Your task to perform on an android device: turn pop-ups on in chrome Image 0: 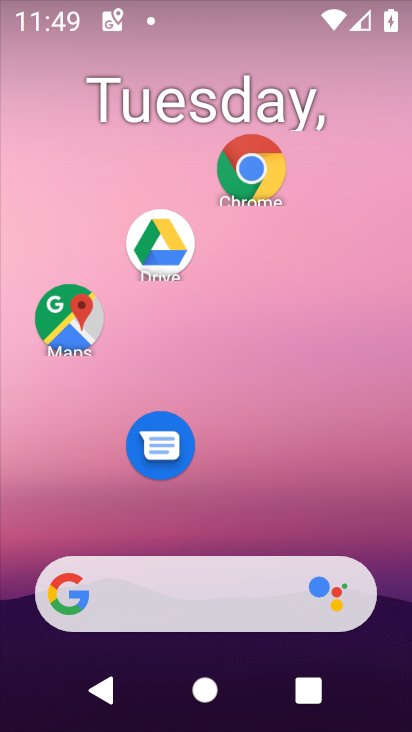
Step 0: click (261, 174)
Your task to perform on an android device: turn pop-ups on in chrome Image 1: 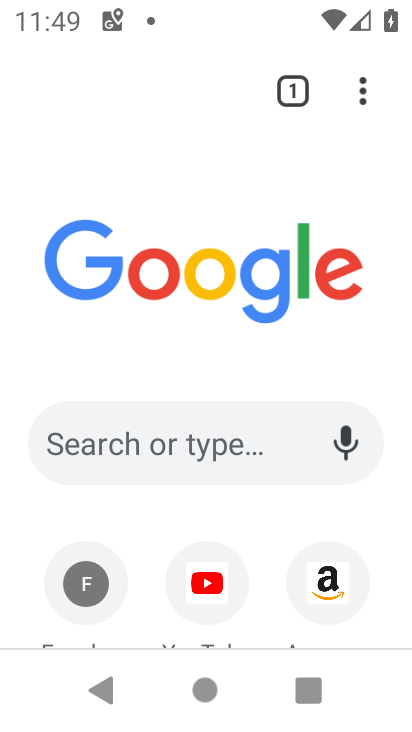
Step 1: drag from (369, 80) to (182, 462)
Your task to perform on an android device: turn pop-ups on in chrome Image 2: 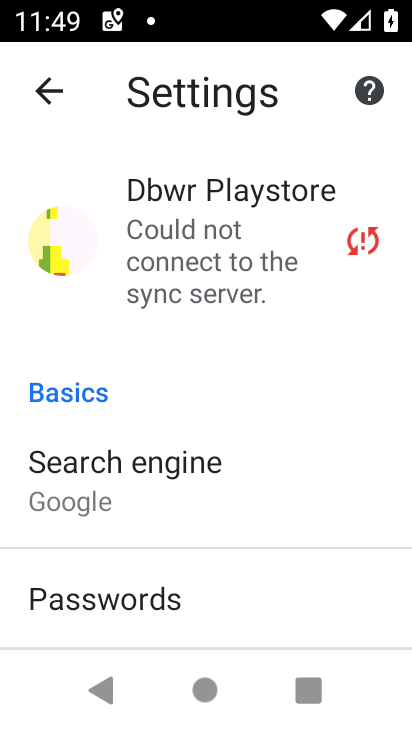
Step 2: drag from (236, 516) to (246, 198)
Your task to perform on an android device: turn pop-ups on in chrome Image 3: 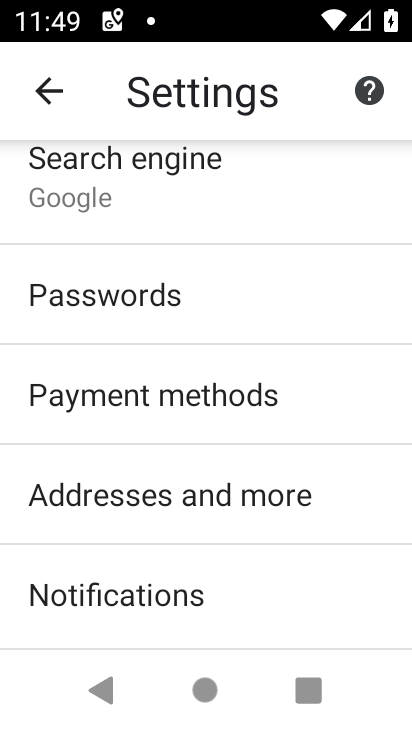
Step 3: drag from (197, 546) to (238, 273)
Your task to perform on an android device: turn pop-ups on in chrome Image 4: 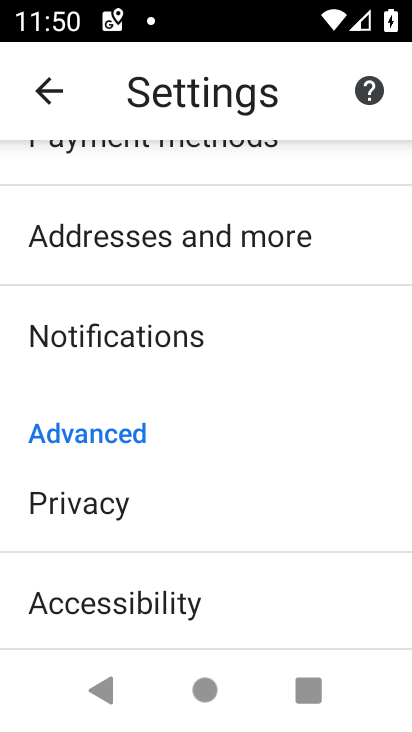
Step 4: drag from (187, 566) to (222, 247)
Your task to perform on an android device: turn pop-ups on in chrome Image 5: 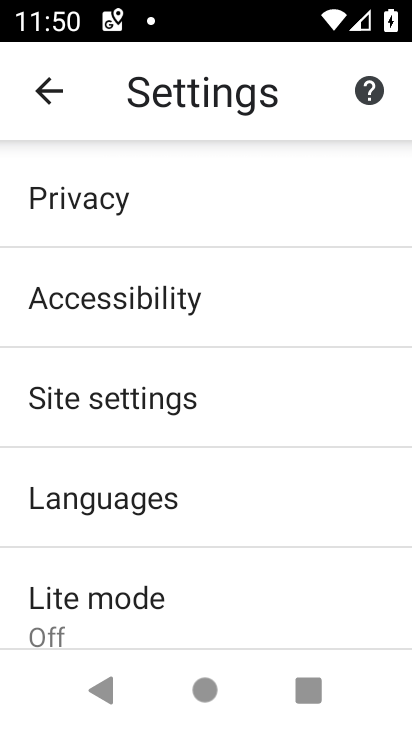
Step 5: click (179, 405)
Your task to perform on an android device: turn pop-ups on in chrome Image 6: 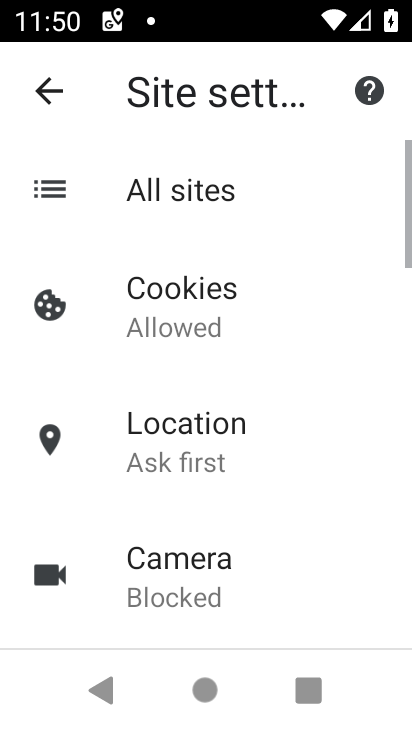
Step 6: drag from (255, 538) to (279, 249)
Your task to perform on an android device: turn pop-ups on in chrome Image 7: 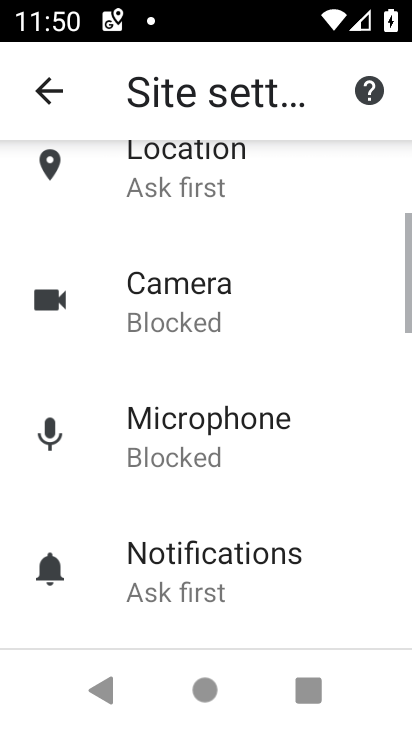
Step 7: drag from (238, 542) to (270, 244)
Your task to perform on an android device: turn pop-ups on in chrome Image 8: 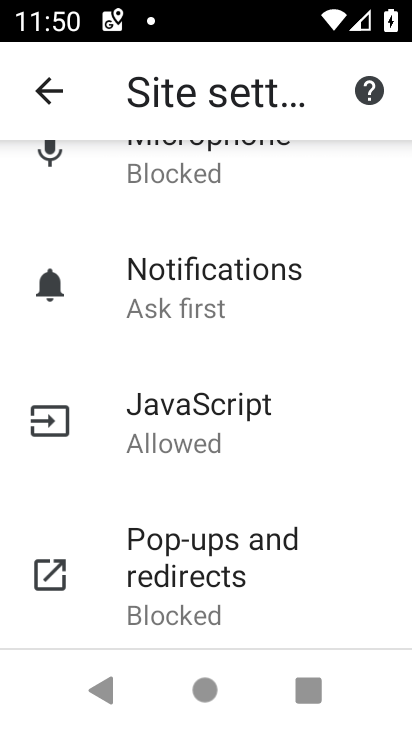
Step 8: click (250, 529)
Your task to perform on an android device: turn pop-ups on in chrome Image 9: 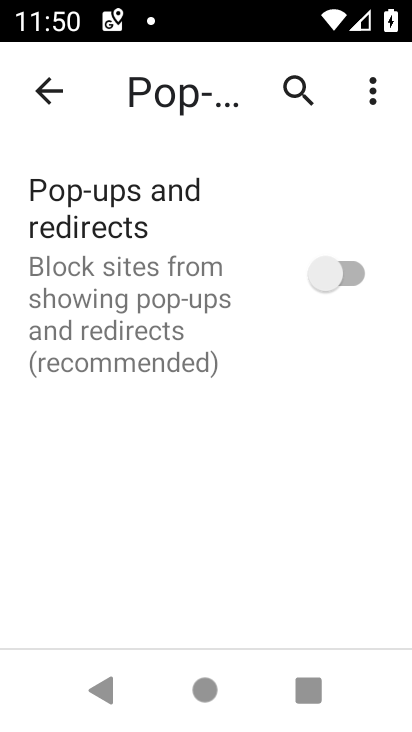
Step 9: click (339, 267)
Your task to perform on an android device: turn pop-ups on in chrome Image 10: 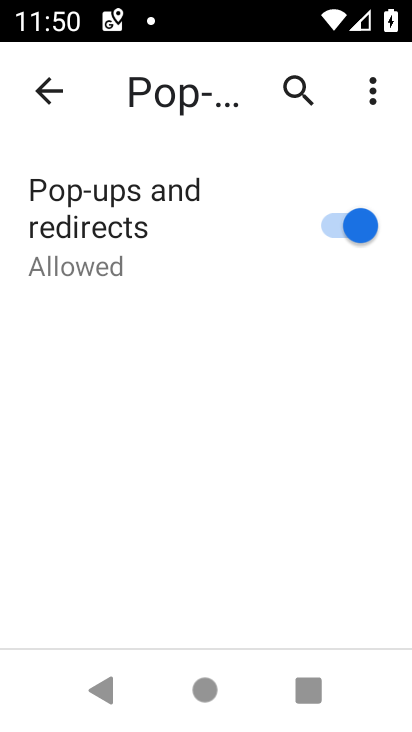
Step 10: task complete